Your task to perform on an android device: Open Amazon Image 0: 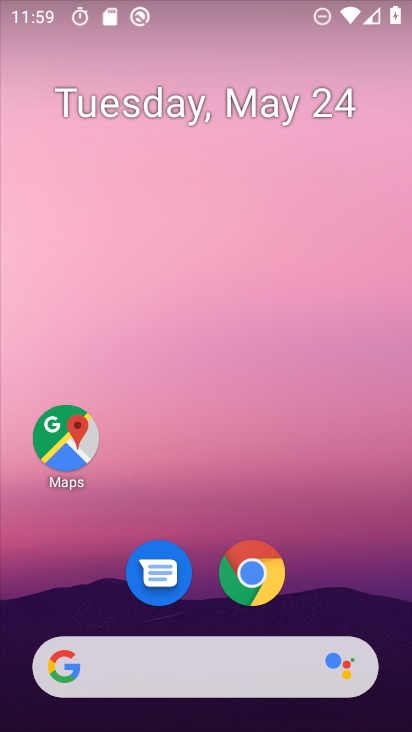
Step 0: drag from (342, 566) to (258, 2)
Your task to perform on an android device: Open Amazon Image 1: 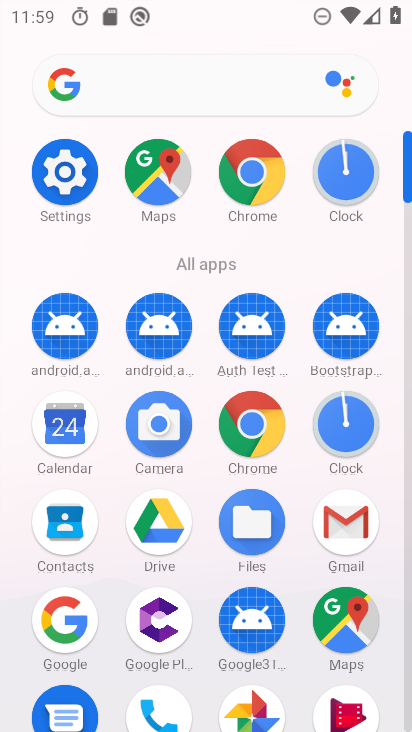
Step 1: click (244, 422)
Your task to perform on an android device: Open Amazon Image 2: 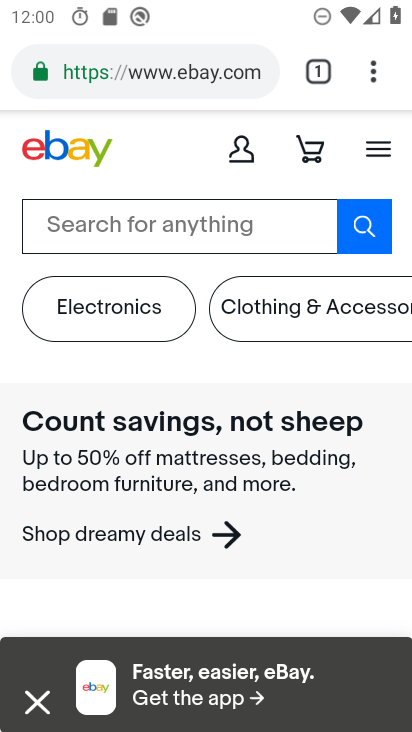
Step 2: click (193, 62)
Your task to perform on an android device: Open Amazon Image 3: 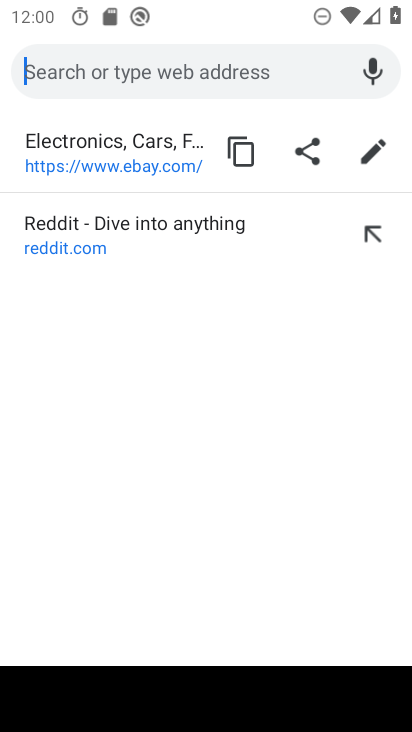
Step 3: type "Amazon"
Your task to perform on an android device: Open Amazon Image 4: 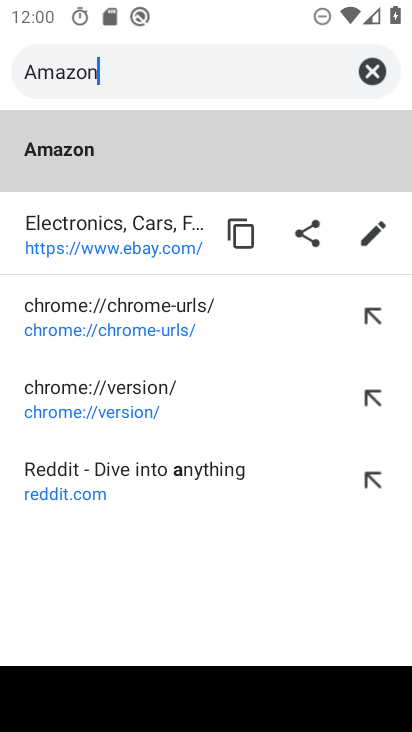
Step 4: type ""
Your task to perform on an android device: Open Amazon Image 5: 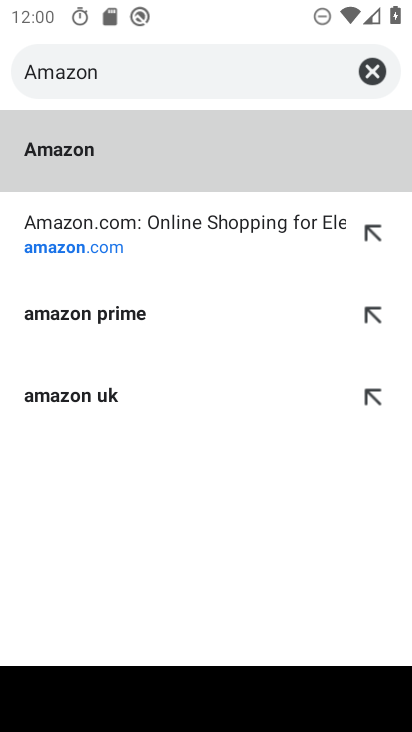
Step 5: click (152, 226)
Your task to perform on an android device: Open Amazon Image 6: 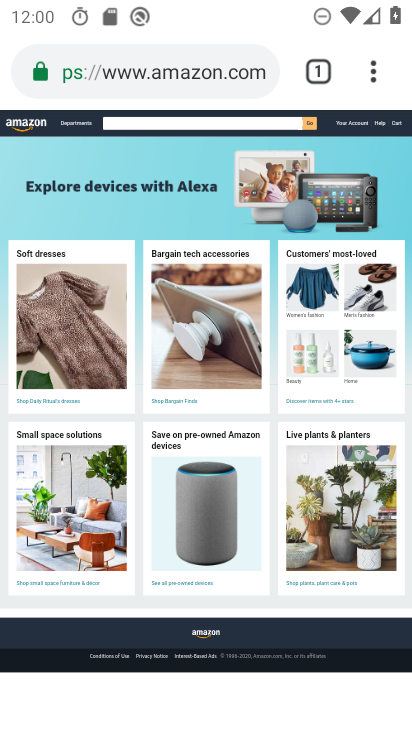
Step 6: task complete